Your task to perform on an android device: Search for the best pizza restaurants on Maps Image 0: 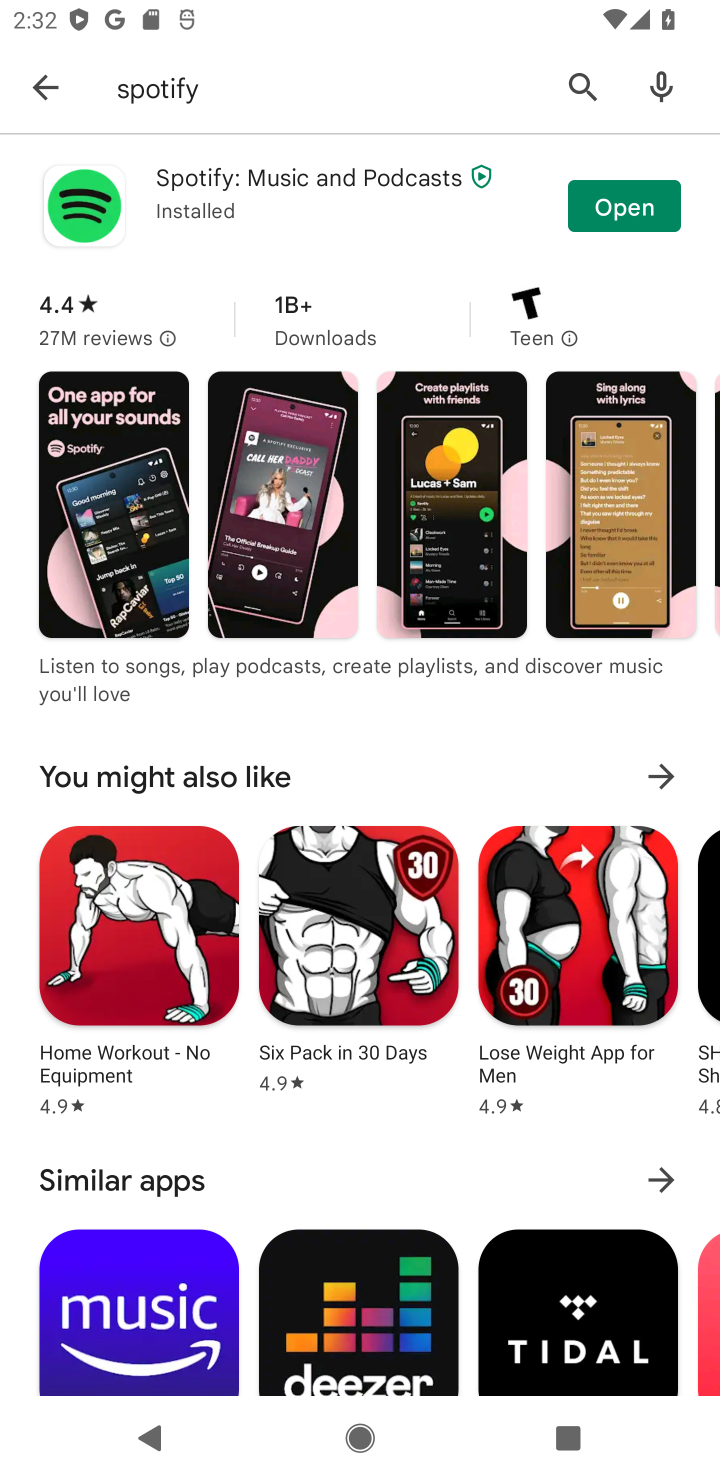
Step 0: press home button
Your task to perform on an android device: Search for the best pizza restaurants on Maps Image 1: 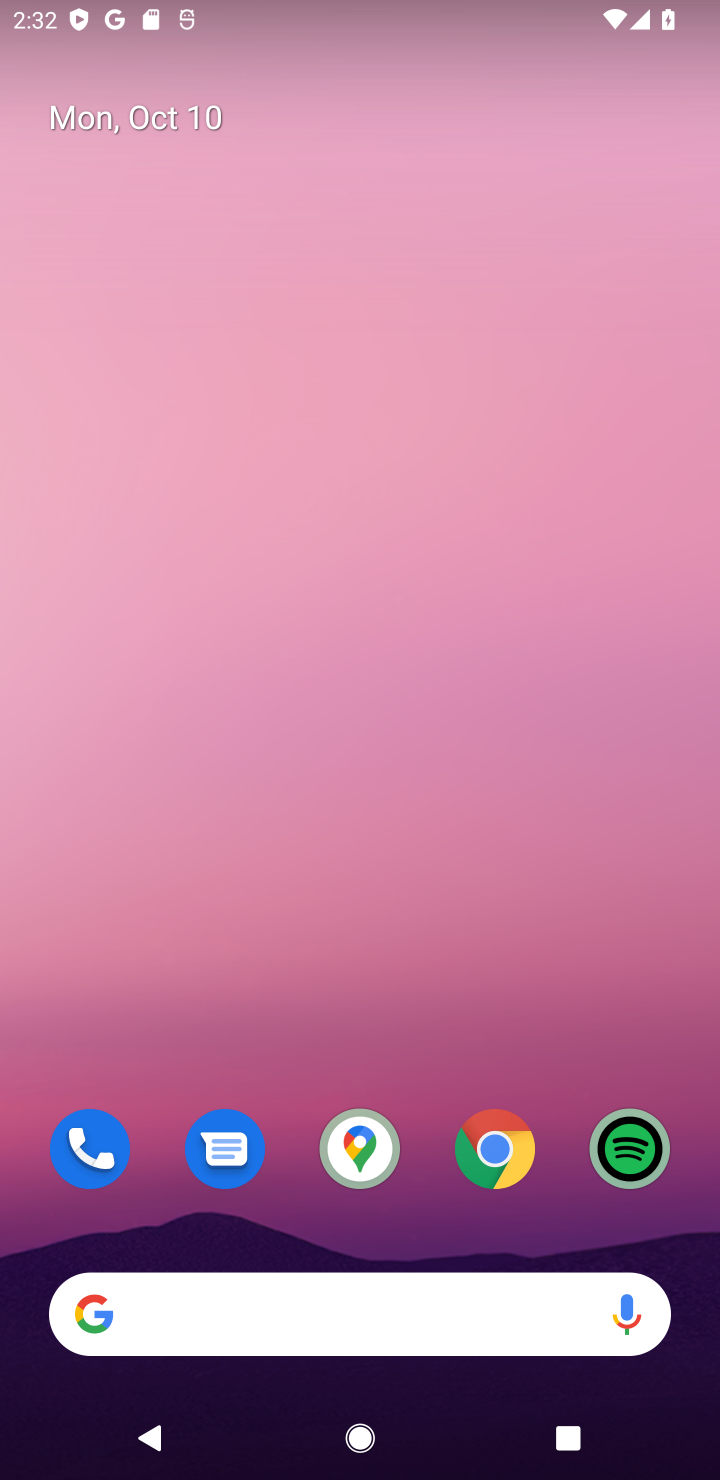
Step 1: click (313, 1332)
Your task to perform on an android device: Search for the best pizza restaurants on Maps Image 2: 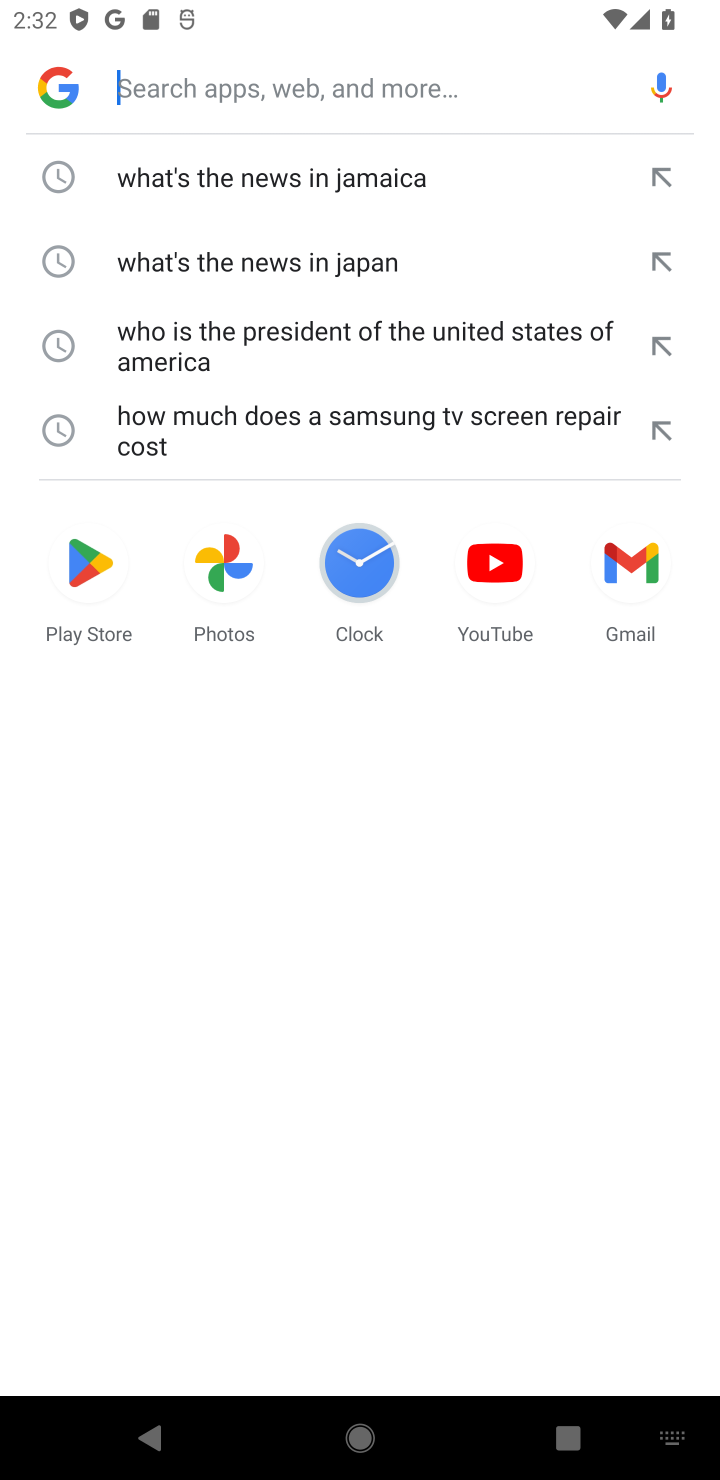
Step 2: type "best pizza restaurants"
Your task to perform on an android device: Search for the best pizza restaurants on Maps Image 3: 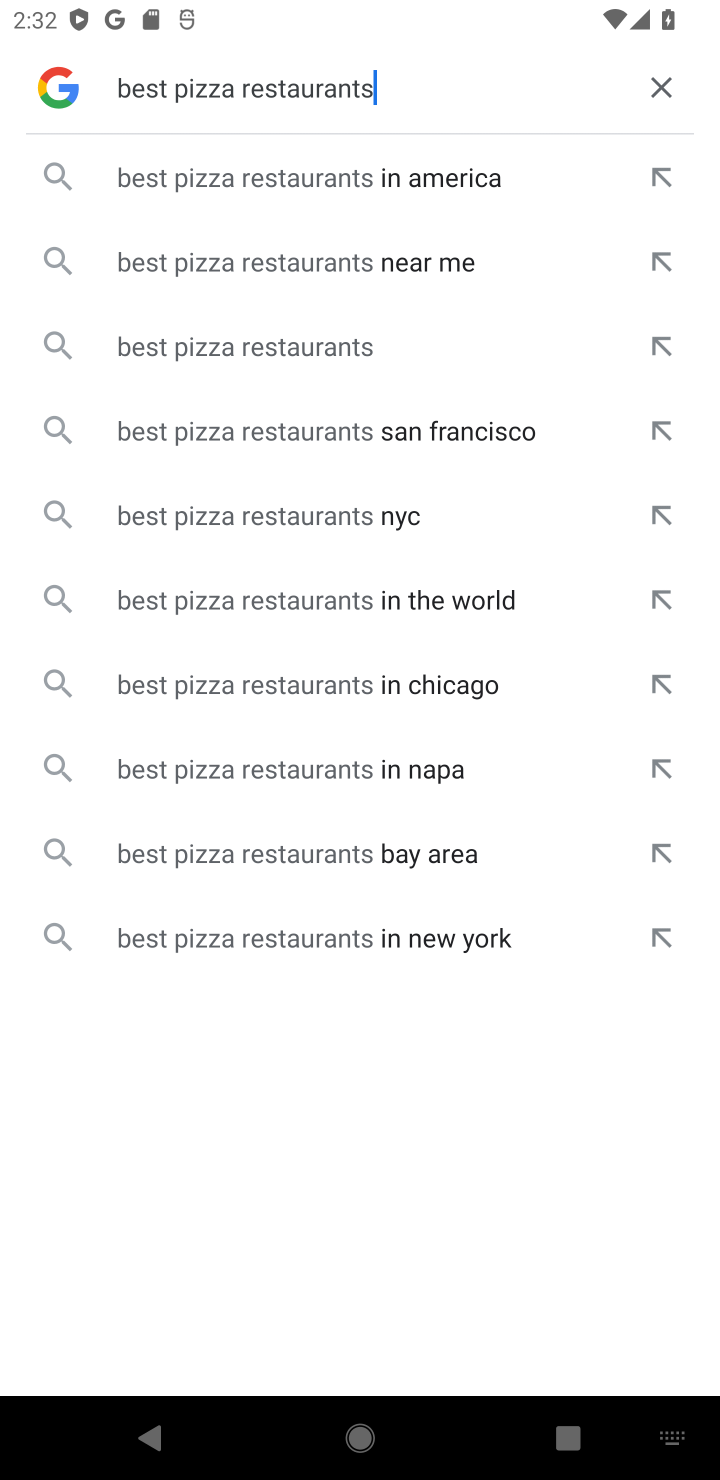
Step 3: click (147, 173)
Your task to perform on an android device: Search for the best pizza restaurants on Maps Image 4: 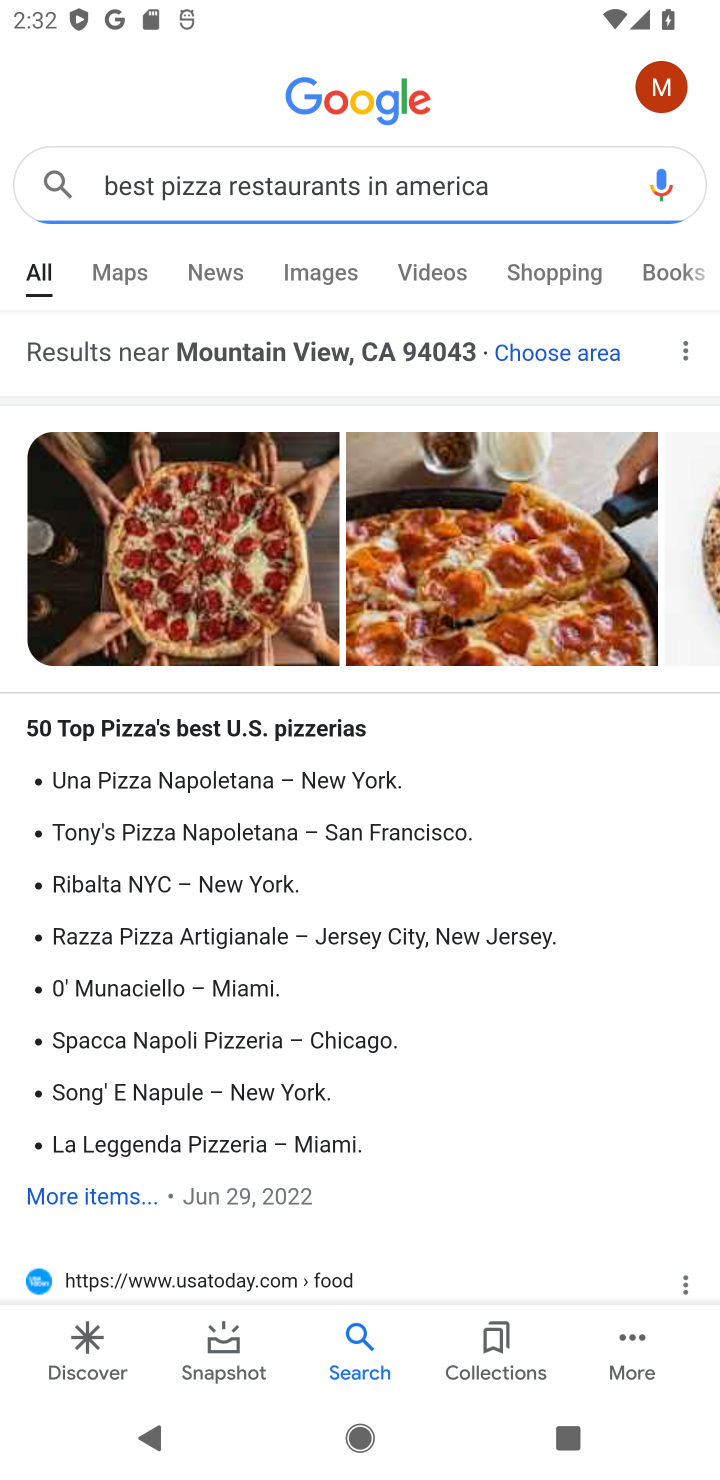
Step 4: task complete